Your task to perform on an android device: see tabs open on other devices in the chrome app Image 0: 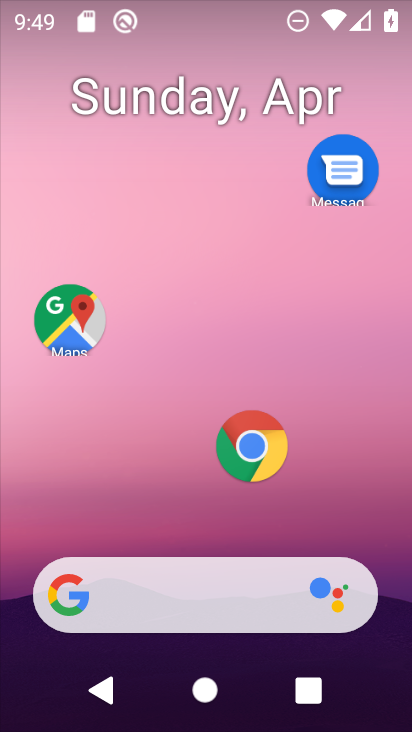
Step 0: drag from (235, 399) to (259, 246)
Your task to perform on an android device: see tabs open on other devices in the chrome app Image 1: 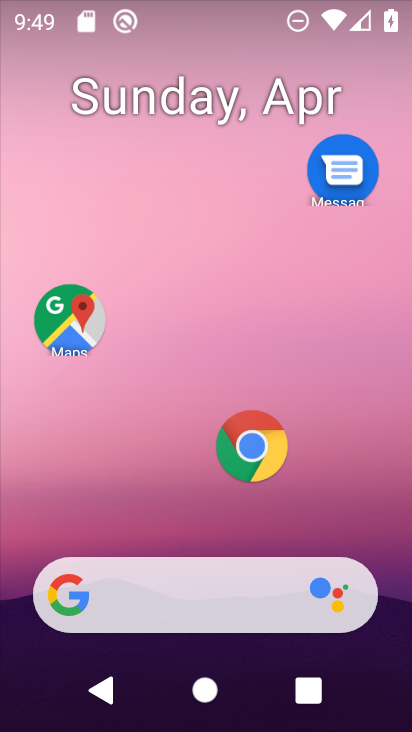
Step 1: drag from (210, 524) to (209, 79)
Your task to perform on an android device: see tabs open on other devices in the chrome app Image 2: 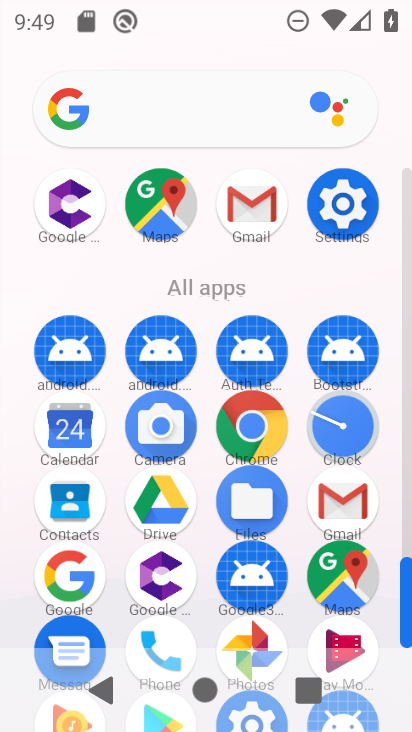
Step 2: click (240, 424)
Your task to perform on an android device: see tabs open on other devices in the chrome app Image 3: 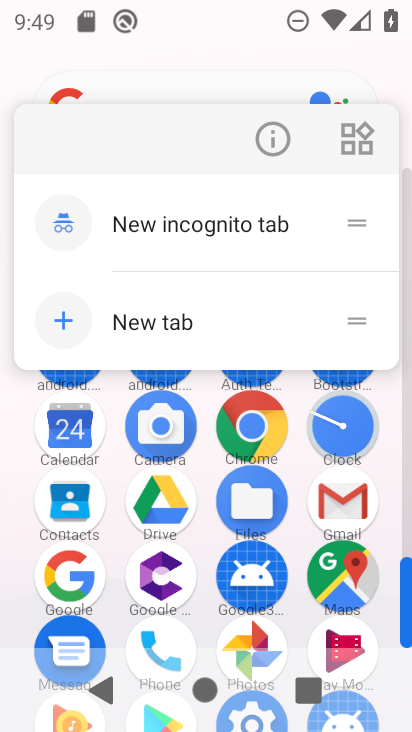
Step 3: click (253, 144)
Your task to perform on an android device: see tabs open on other devices in the chrome app Image 4: 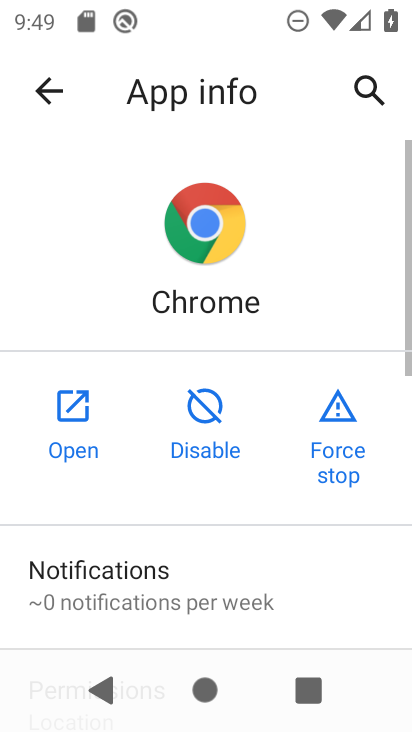
Step 4: click (78, 412)
Your task to perform on an android device: see tabs open on other devices in the chrome app Image 5: 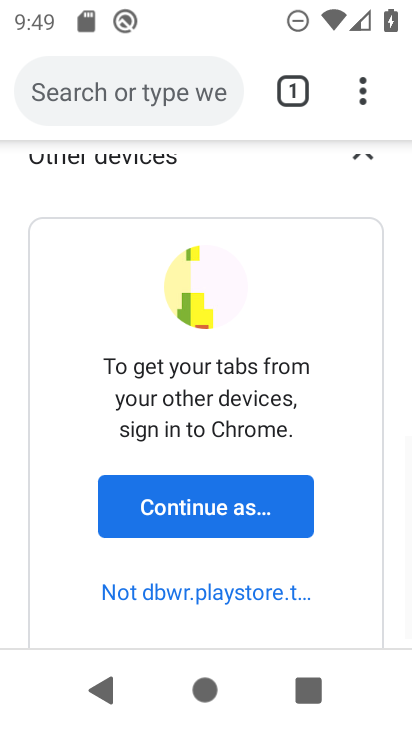
Step 5: drag from (258, 635) to (322, 157)
Your task to perform on an android device: see tabs open on other devices in the chrome app Image 6: 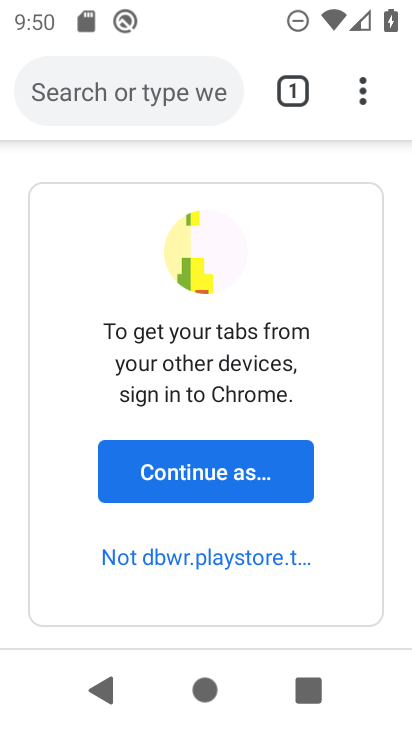
Step 6: drag from (254, 554) to (285, 158)
Your task to perform on an android device: see tabs open on other devices in the chrome app Image 7: 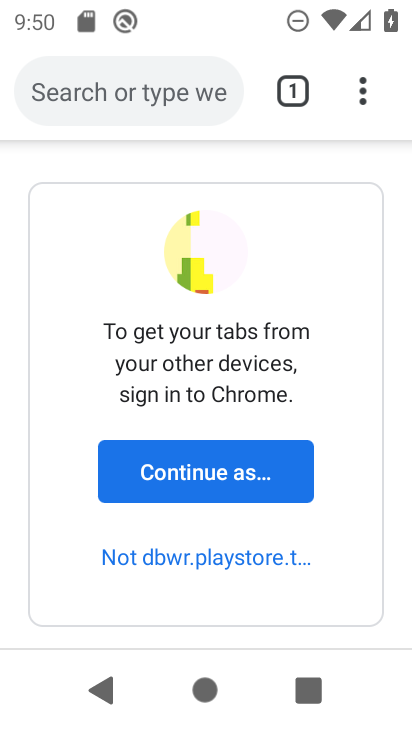
Step 7: drag from (185, 585) to (277, 61)
Your task to perform on an android device: see tabs open on other devices in the chrome app Image 8: 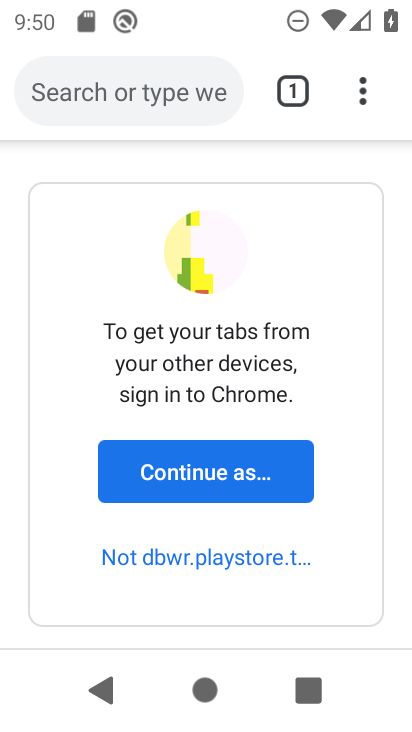
Step 8: click (383, 99)
Your task to perform on an android device: see tabs open on other devices in the chrome app Image 9: 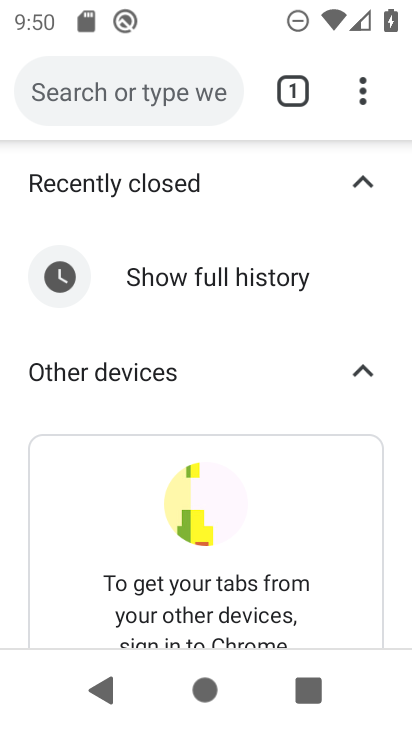
Step 9: click (322, 95)
Your task to perform on an android device: see tabs open on other devices in the chrome app Image 10: 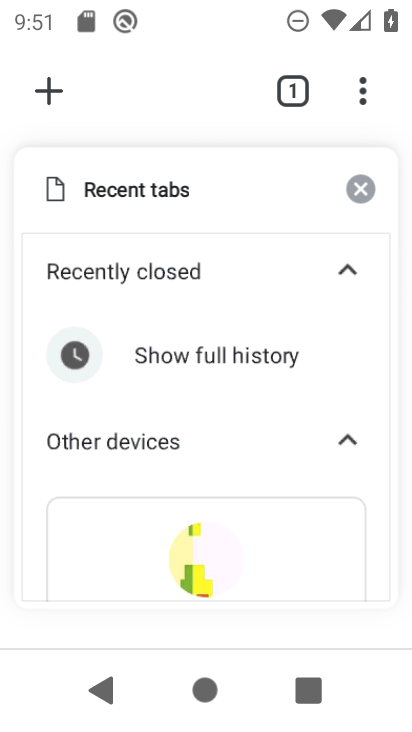
Step 10: click (259, 217)
Your task to perform on an android device: see tabs open on other devices in the chrome app Image 11: 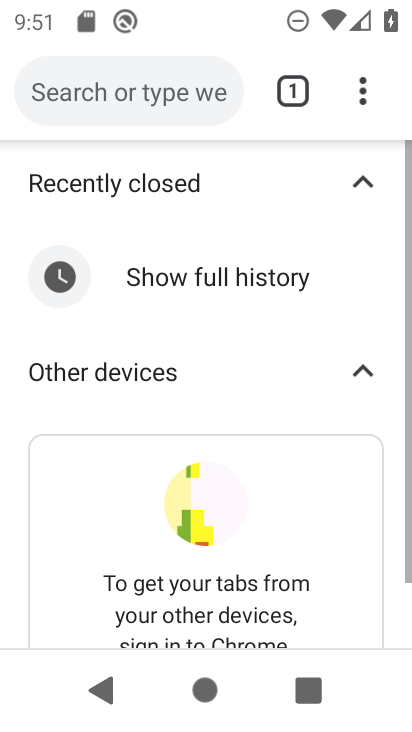
Step 11: click (366, 91)
Your task to perform on an android device: see tabs open on other devices in the chrome app Image 12: 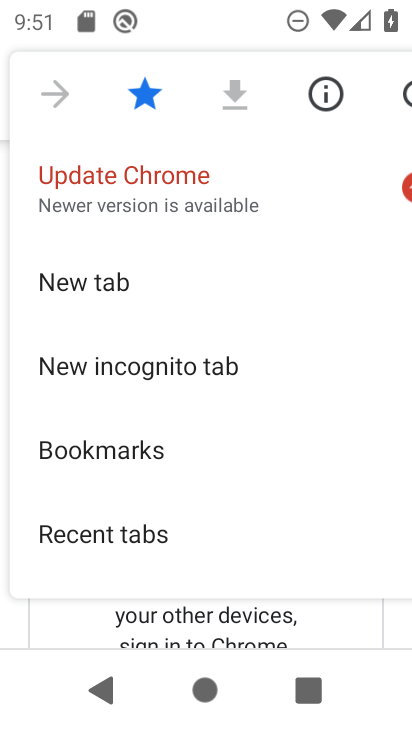
Step 12: drag from (164, 484) to (252, 255)
Your task to perform on an android device: see tabs open on other devices in the chrome app Image 13: 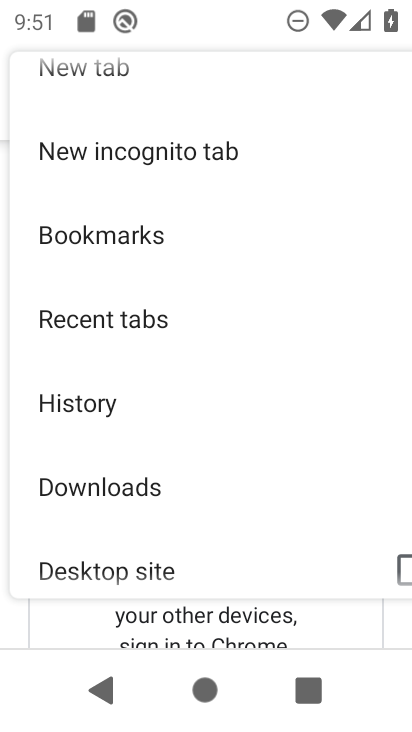
Step 13: click (154, 339)
Your task to perform on an android device: see tabs open on other devices in the chrome app Image 14: 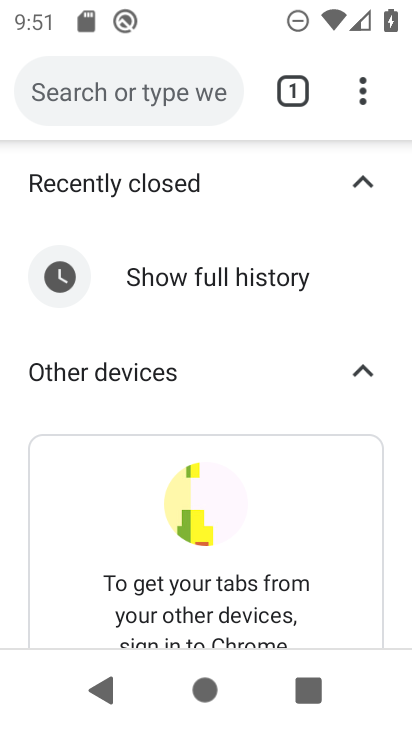
Step 14: task complete